Your task to perform on an android device: Open Reddit.com Image 0: 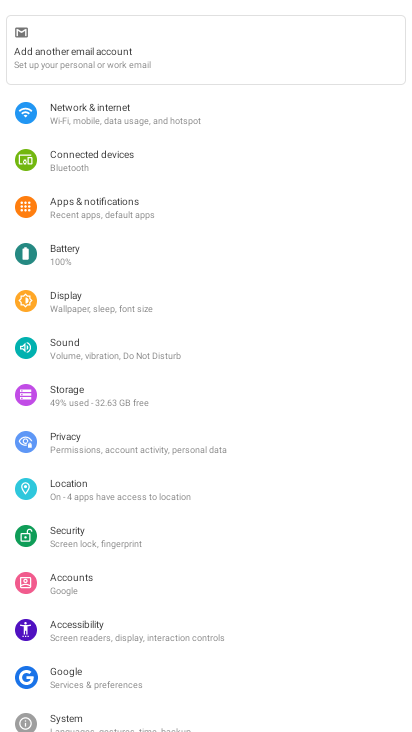
Step 0: press home button
Your task to perform on an android device: Open Reddit.com Image 1: 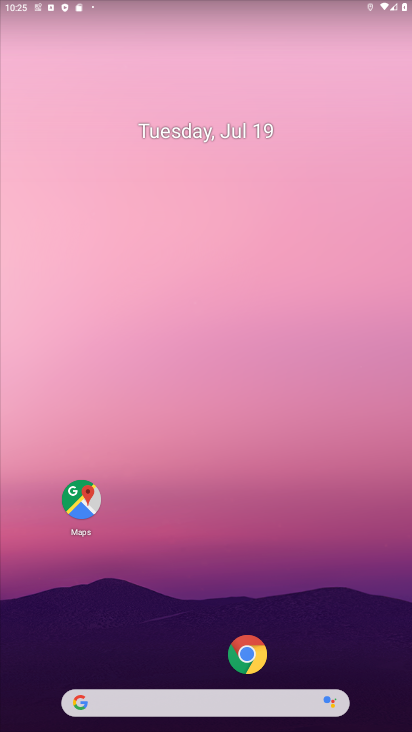
Step 1: click (153, 707)
Your task to perform on an android device: Open Reddit.com Image 2: 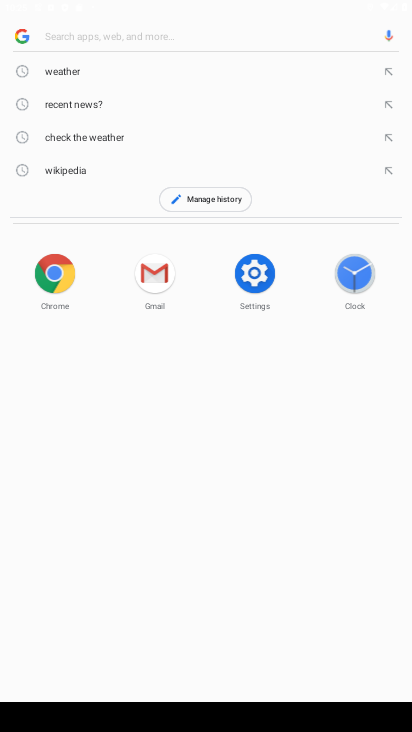
Step 2: type "reddit"
Your task to perform on an android device: Open Reddit.com Image 3: 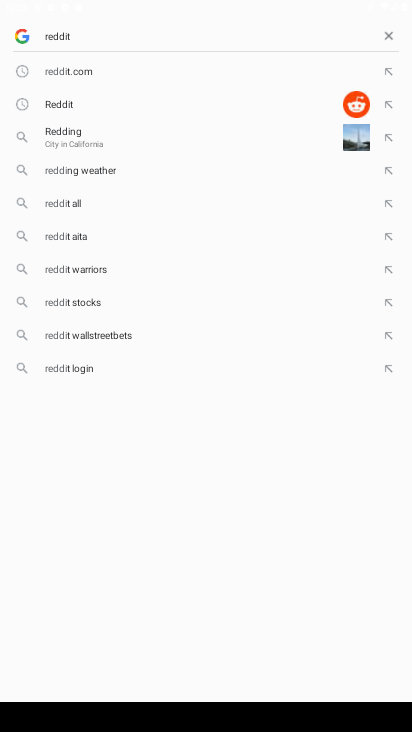
Step 3: click (66, 115)
Your task to perform on an android device: Open Reddit.com Image 4: 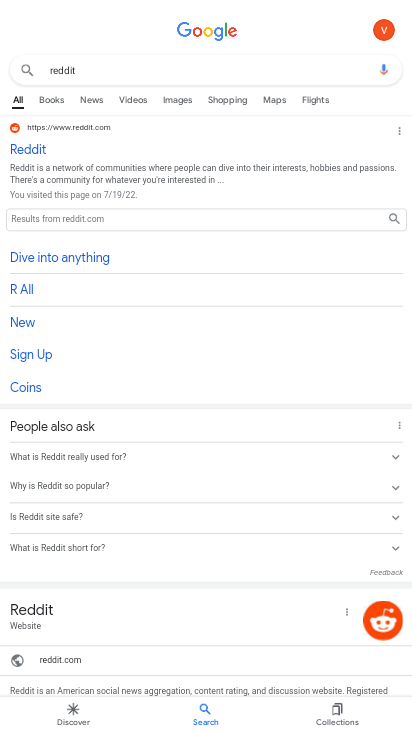
Step 4: click (33, 154)
Your task to perform on an android device: Open Reddit.com Image 5: 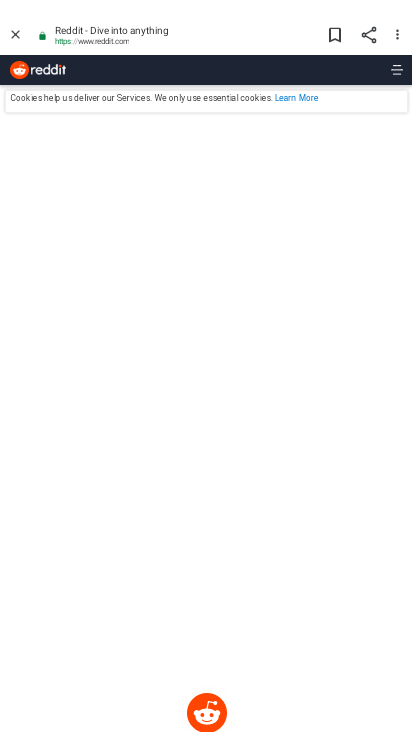
Step 5: task complete